Your task to perform on an android device: How much does a 3 bedroom apartment rent for in Dallas? Image 0: 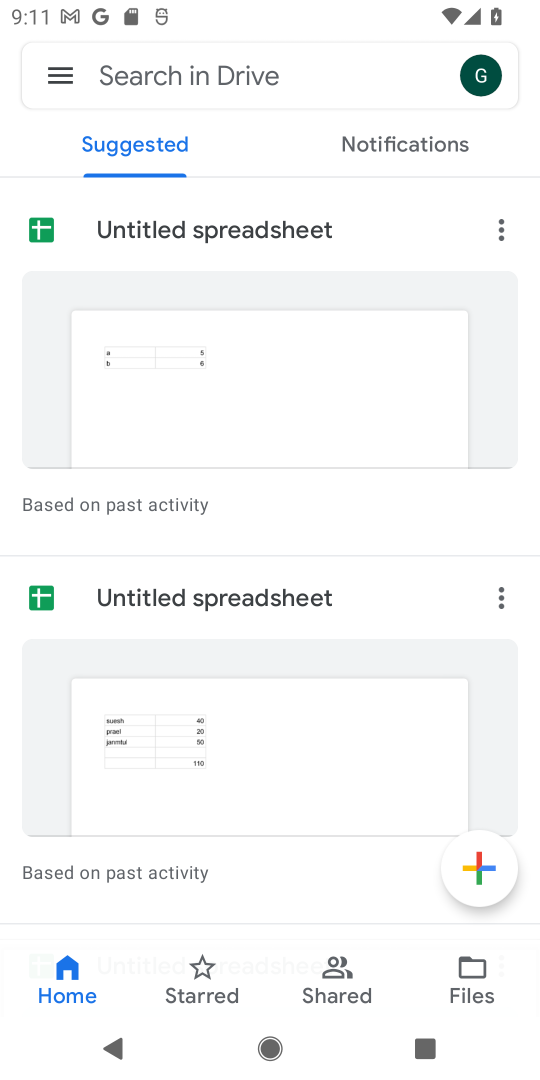
Step 0: press home button
Your task to perform on an android device: How much does a 3 bedroom apartment rent for in Dallas? Image 1: 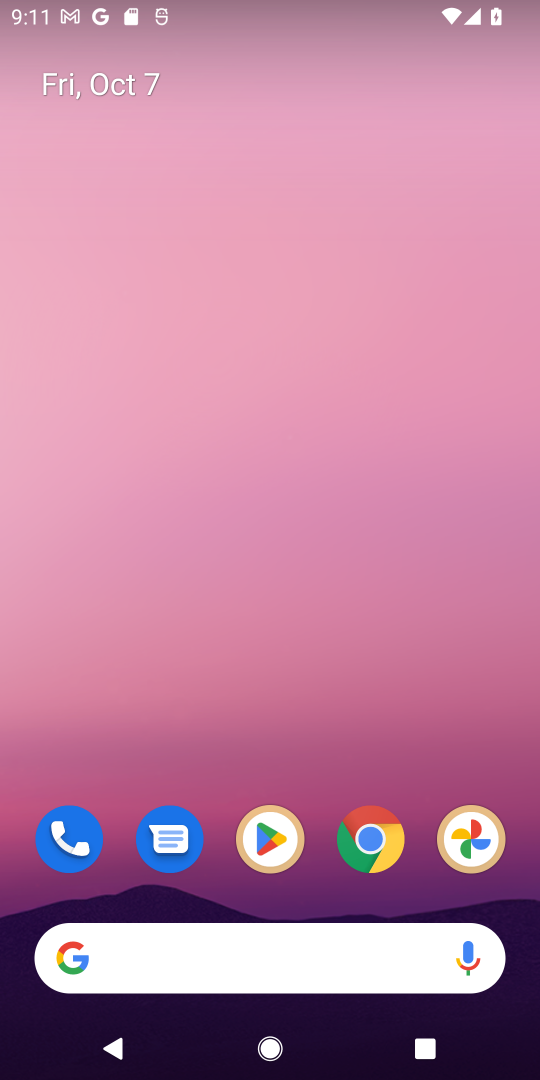
Step 1: click (381, 838)
Your task to perform on an android device: How much does a 3 bedroom apartment rent for in Dallas? Image 2: 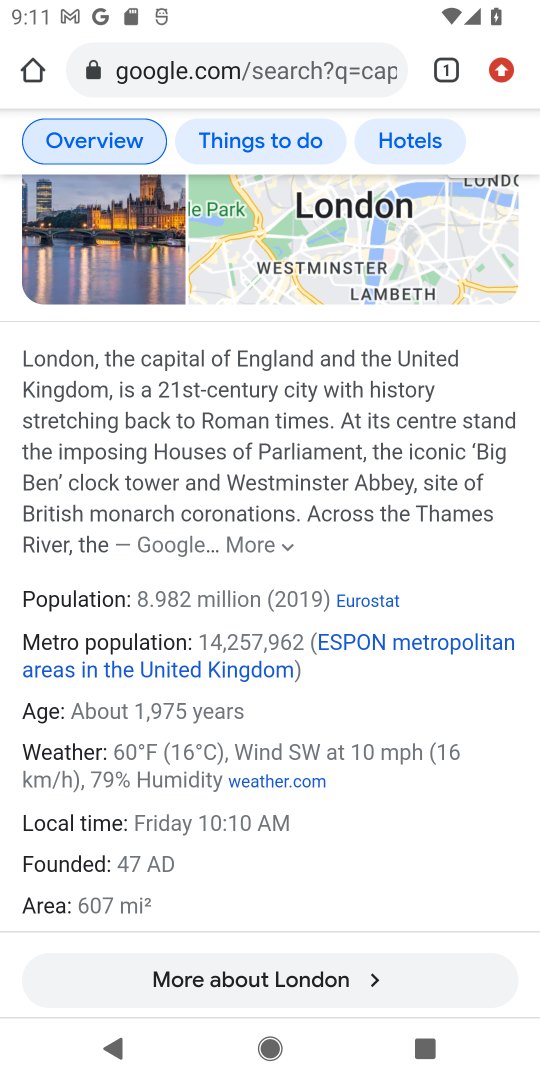
Step 2: click (236, 75)
Your task to perform on an android device: How much does a 3 bedroom apartment rent for in Dallas? Image 3: 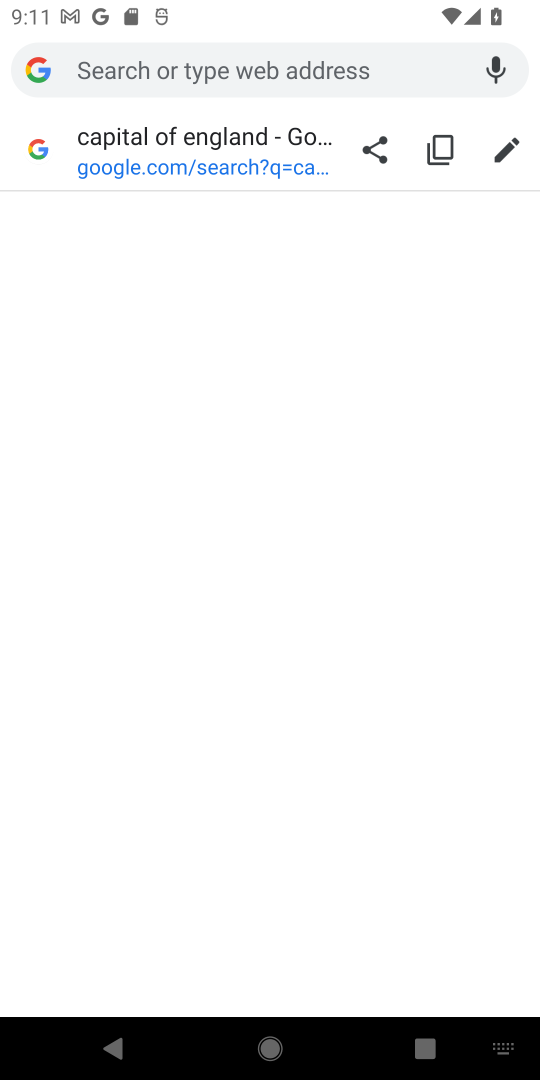
Step 3: type "3 bed room apartmnet rent in dallas"
Your task to perform on an android device: How much does a 3 bedroom apartment rent for in Dallas? Image 4: 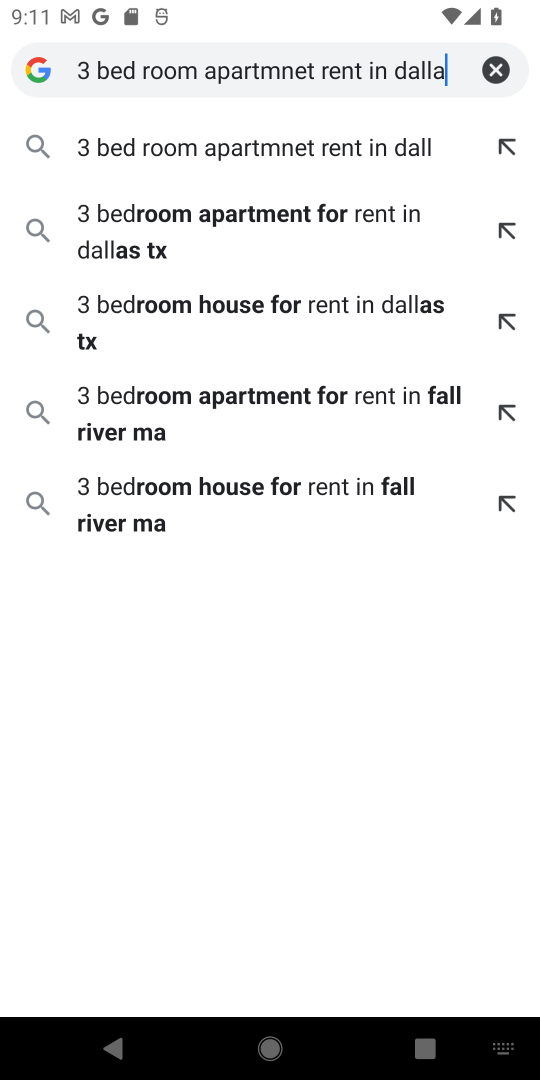
Step 4: type ""
Your task to perform on an android device: How much does a 3 bedroom apartment rent for in Dallas? Image 5: 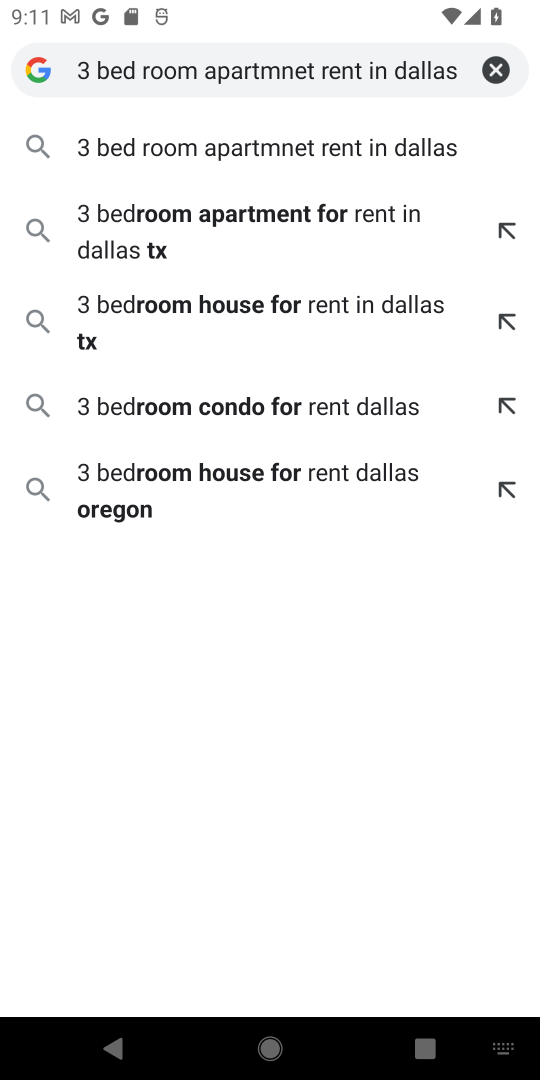
Step 5: click (158, 204)
Your task to perform on an android device: How much does a 3 bedroom apartment rent for in Dallas? Image 6: 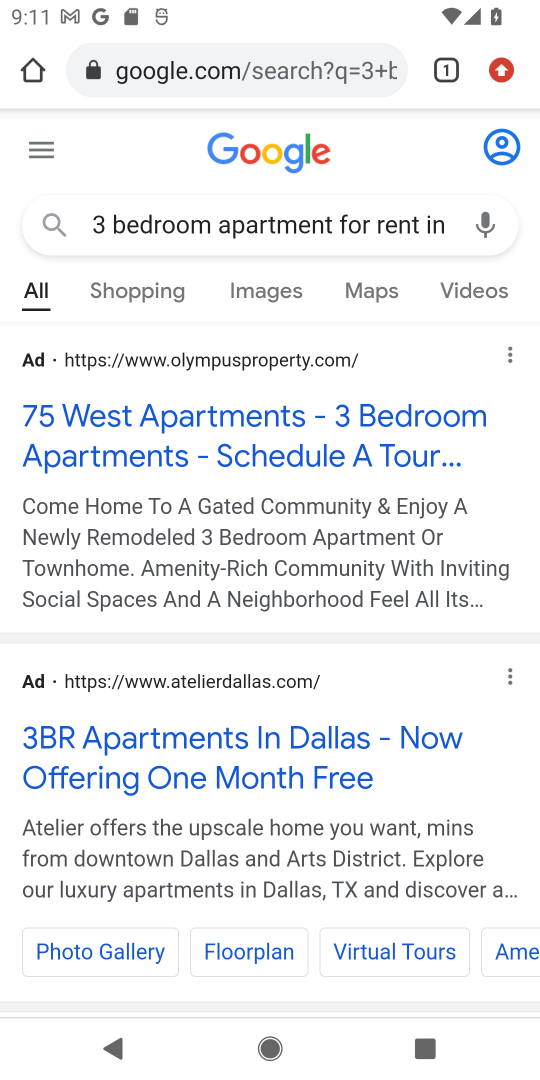
Step 6: click (194, 728)
Your task to perform on an android device: How much does a 3 bedroom apartment rent for in Dallas? Image 7: 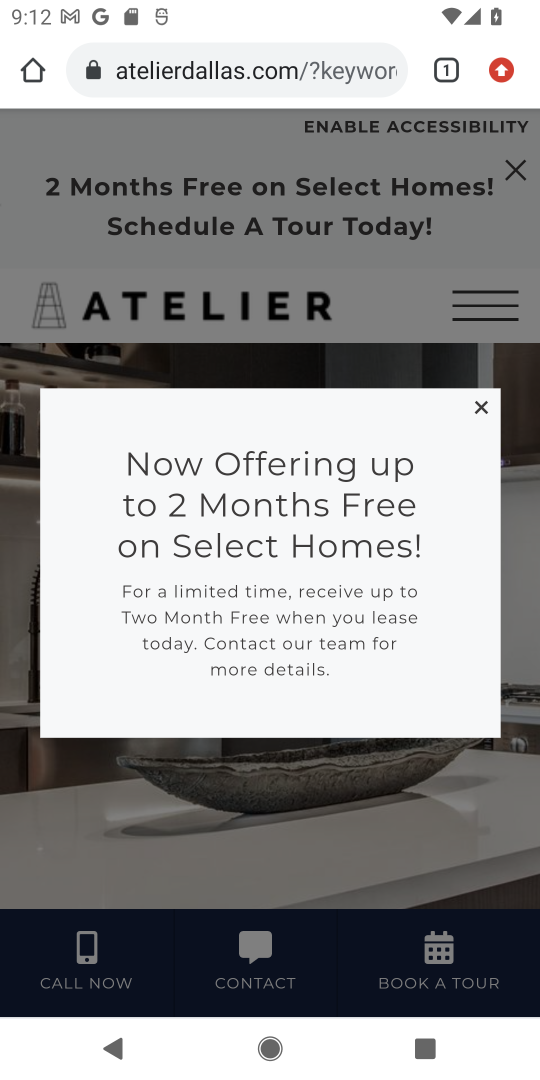
Step 7: click (487, 404)
Your task to perform on an android device: How much does a 3 bedroom apartment rent for in Dallas? Image 8: 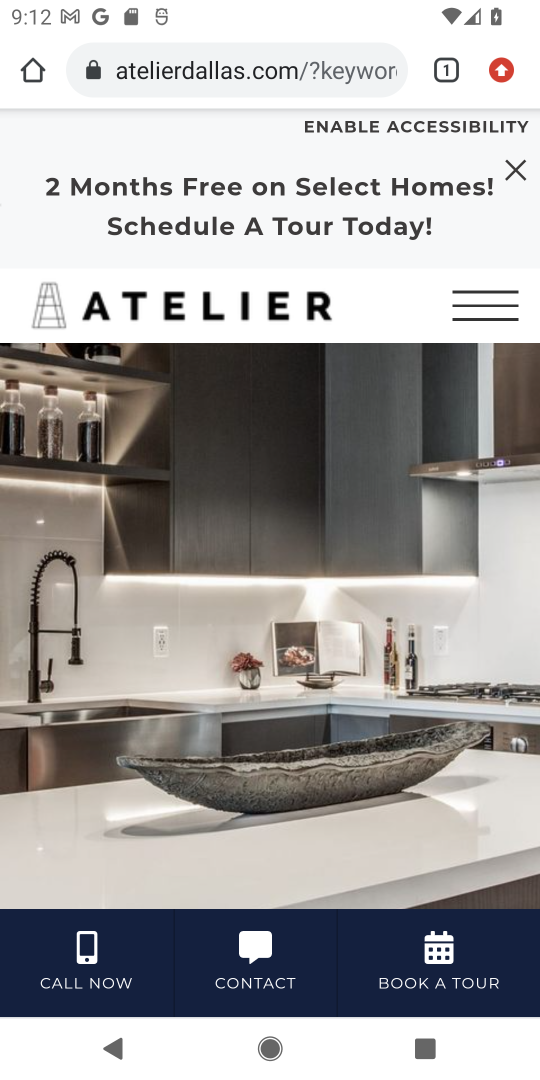
Step 8: drag from (156, 714) to (253, 251)
Your task to perform on an android device: How much does a 3 bedroom apartment rent for in Dallas? Image 9: 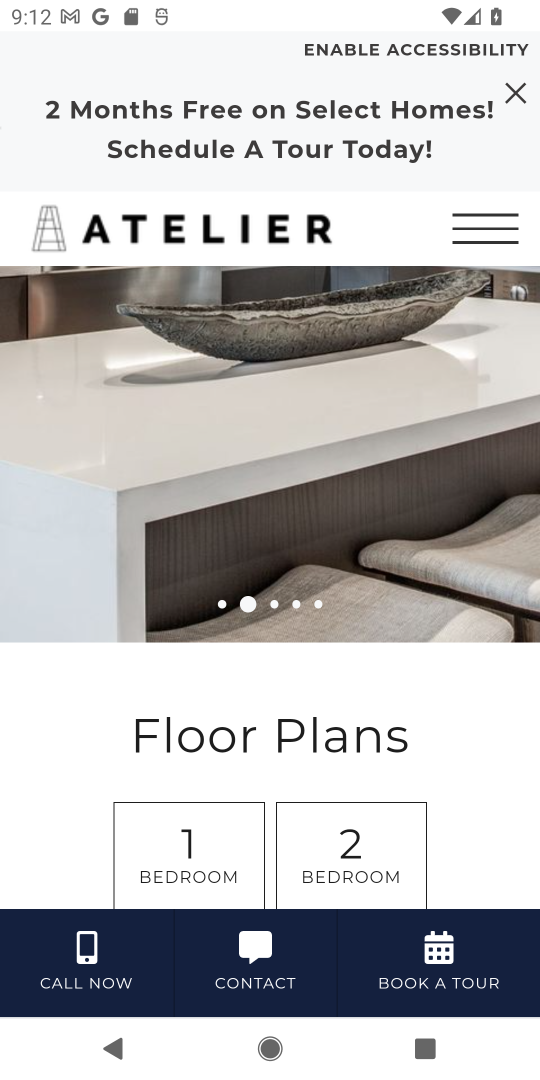
Step 9: drag from (149, 608) to (176, 437)
Your task to perform on an android device: How much does a 3 bedroom apartment rent for in Dallas? Image 10: 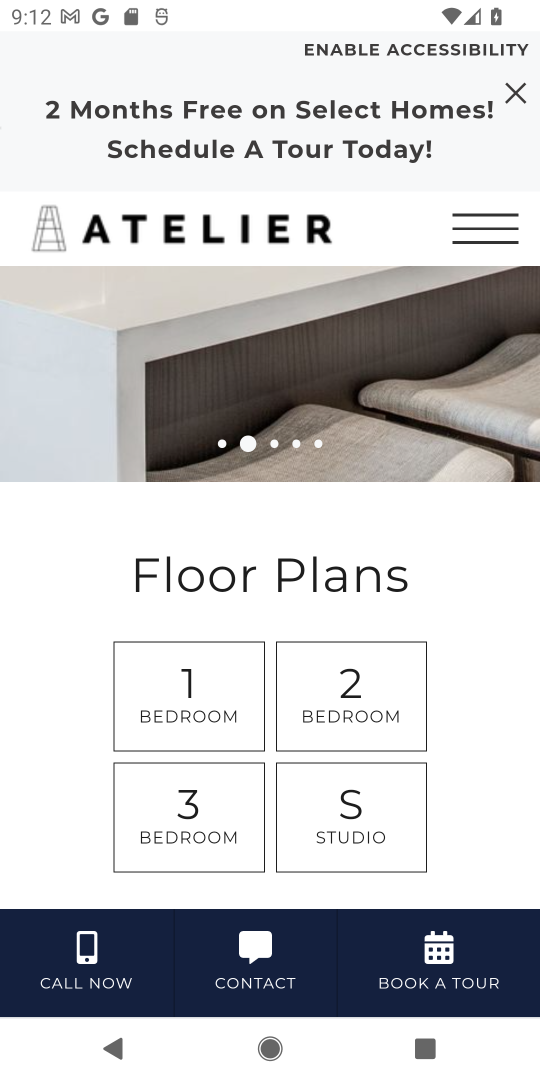
Step 10: click (188, 805)
Your task to perform on an android device: How much does a 3 bedroom apartment rent for in Dallas? Image 11: 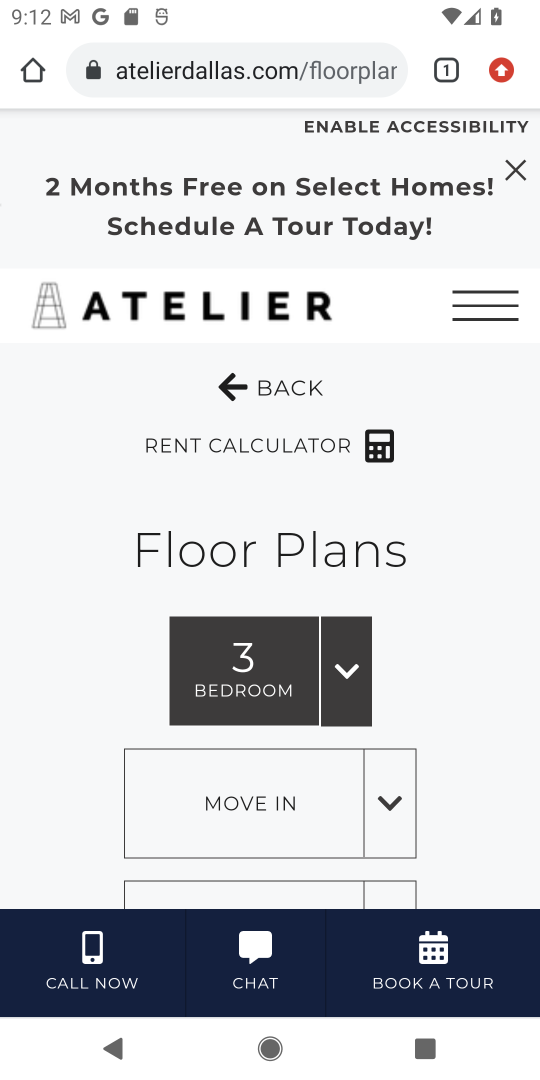
Step 11: task complete